Your task to perform on an android device: Search for flights from London to Paris Image 0: 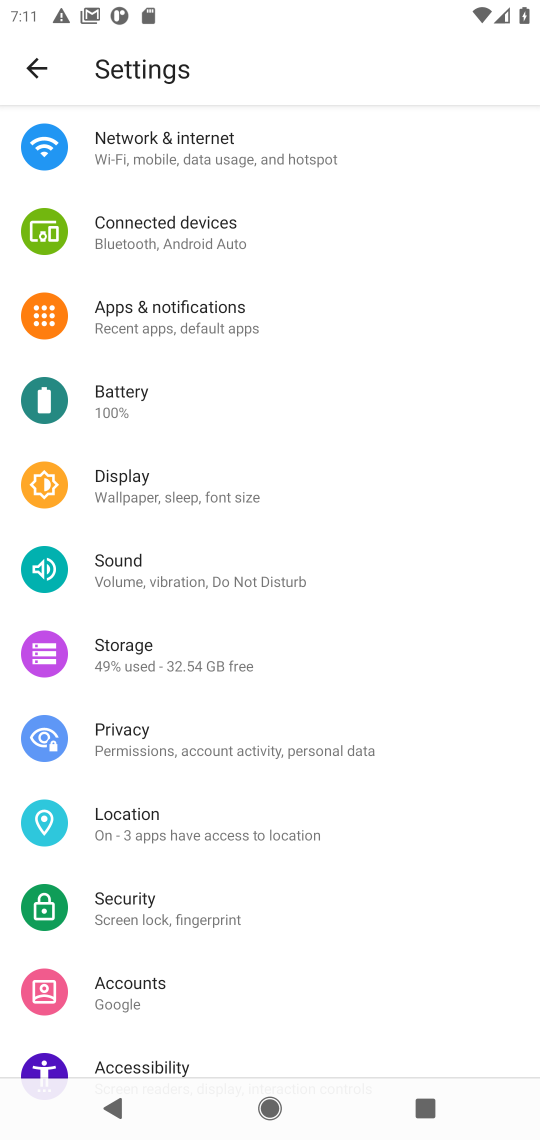
Step 0: press home button
Your task to perform on an android device: Search for flights from London to Paris Image 1: 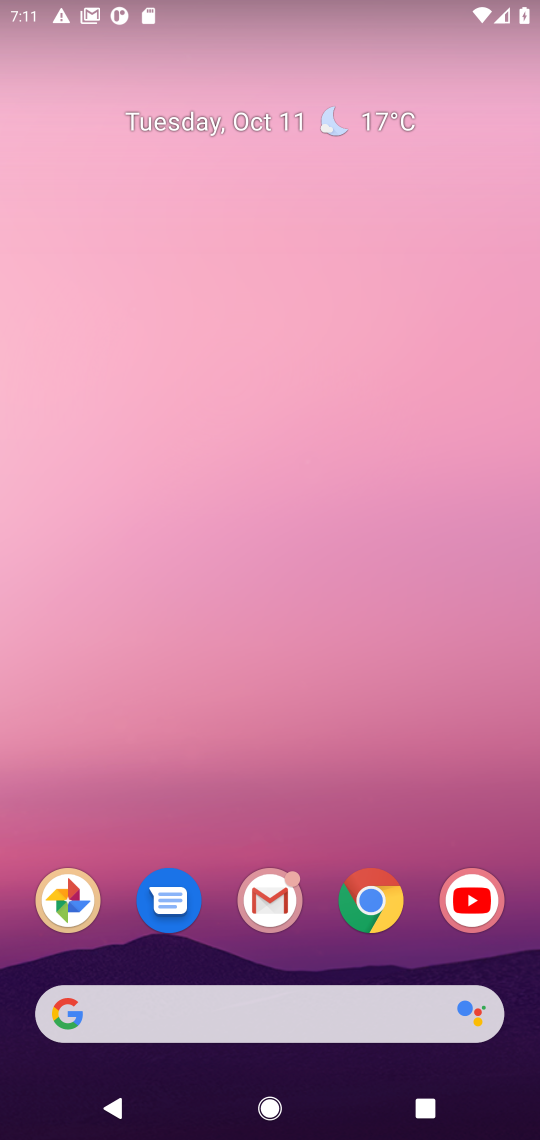
Step 1: click (375, 906)
Your task to perform on an android device: Search for flights from London to Paris Image 2: 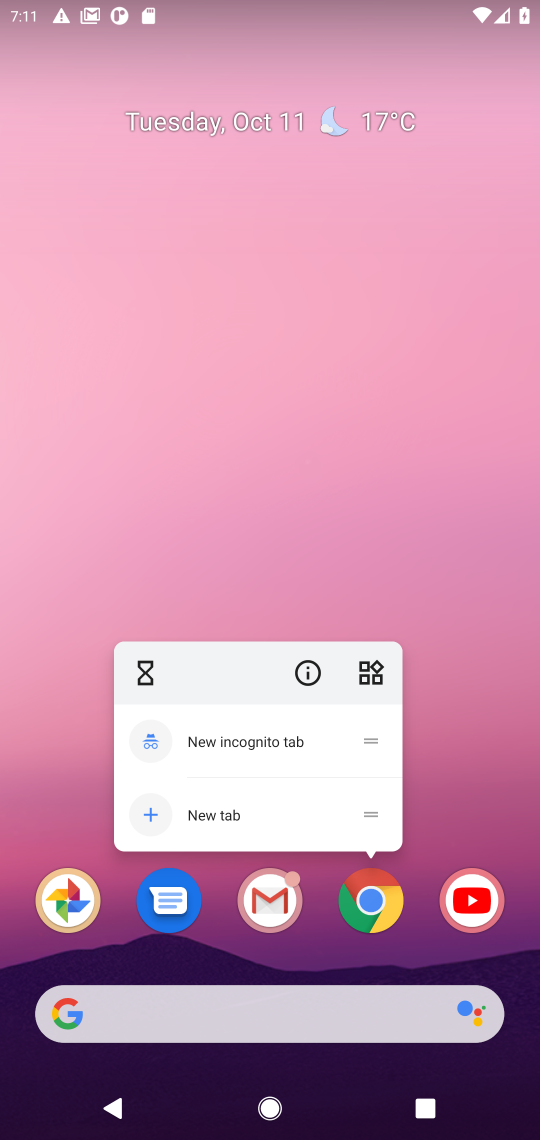
Step 2: click (365, 912)
Your task to perform on an android device: Search for flights from London to Paris Image 3: 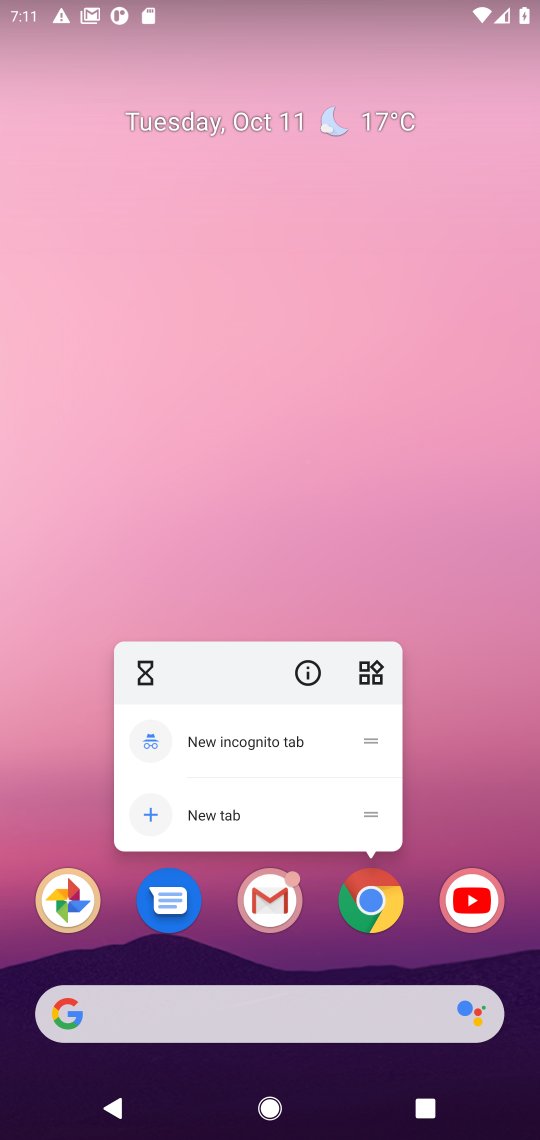
Step 3: click (362, 910)
Your task to perform on an android device: Search for flights from London to Paris Image 4: 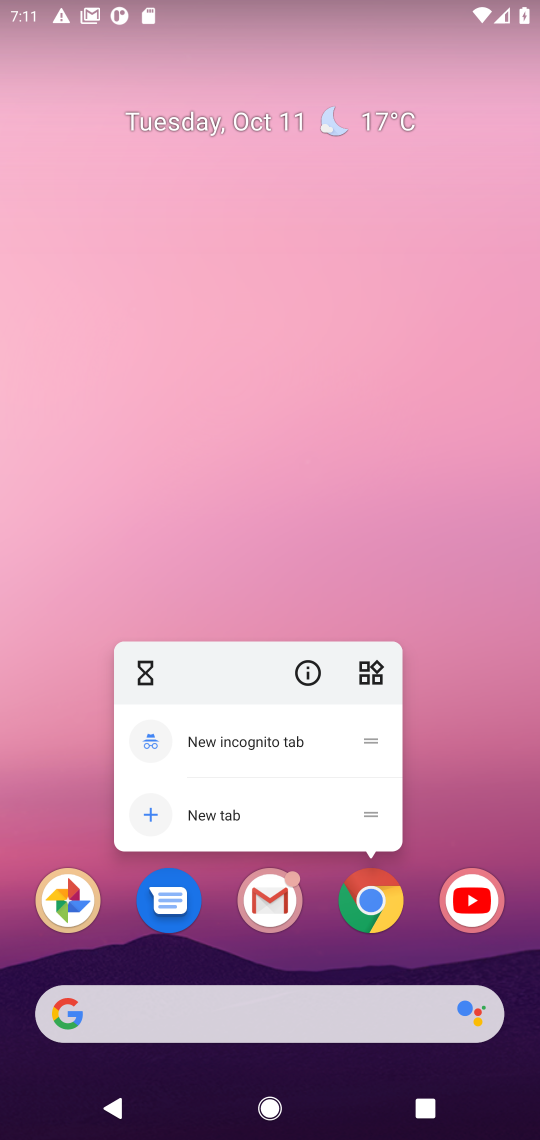
Step 4: click (361, 905)
Your task to perform on an android device: Search for flights from London to Paris Image 5: 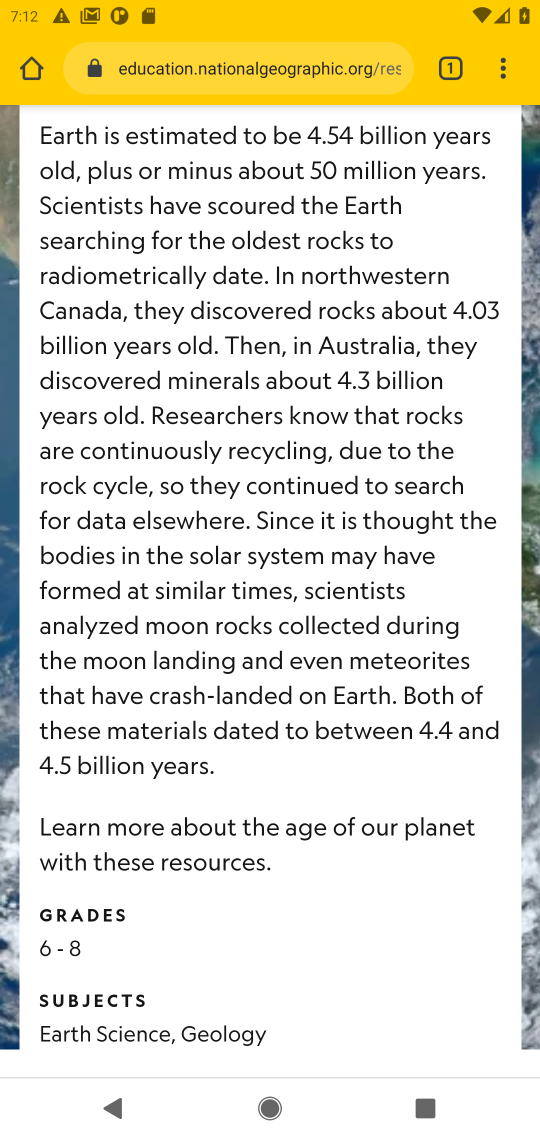
Step 5: click (292, 82)
Your task to perform on an android device: Search for flights from London to Paris Image 6: 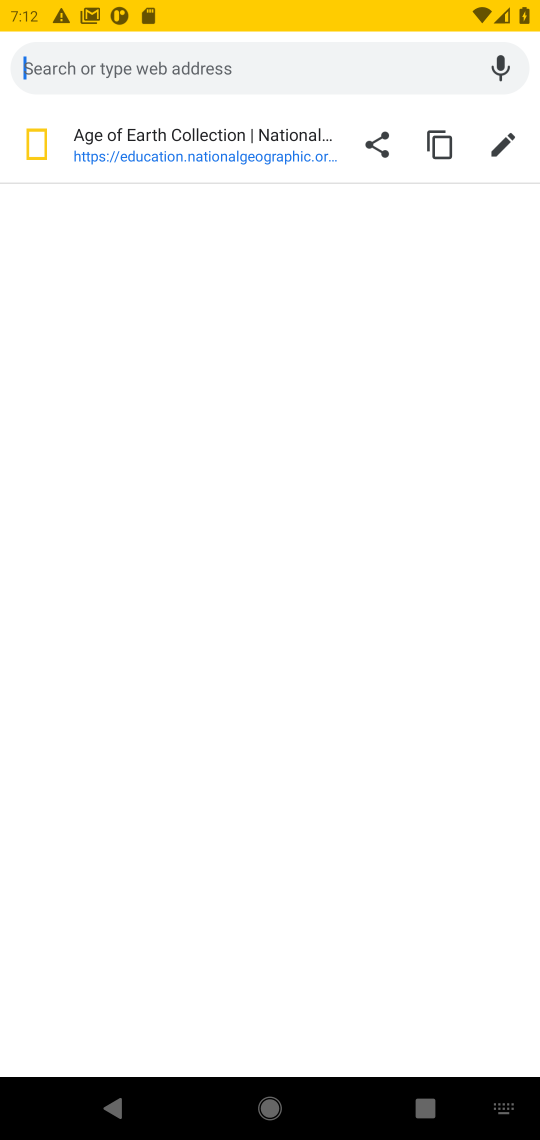
Step 6: type "flights from London to Paris"
Your task to perform on an android device: Search for flights from London to Paris Image 7: 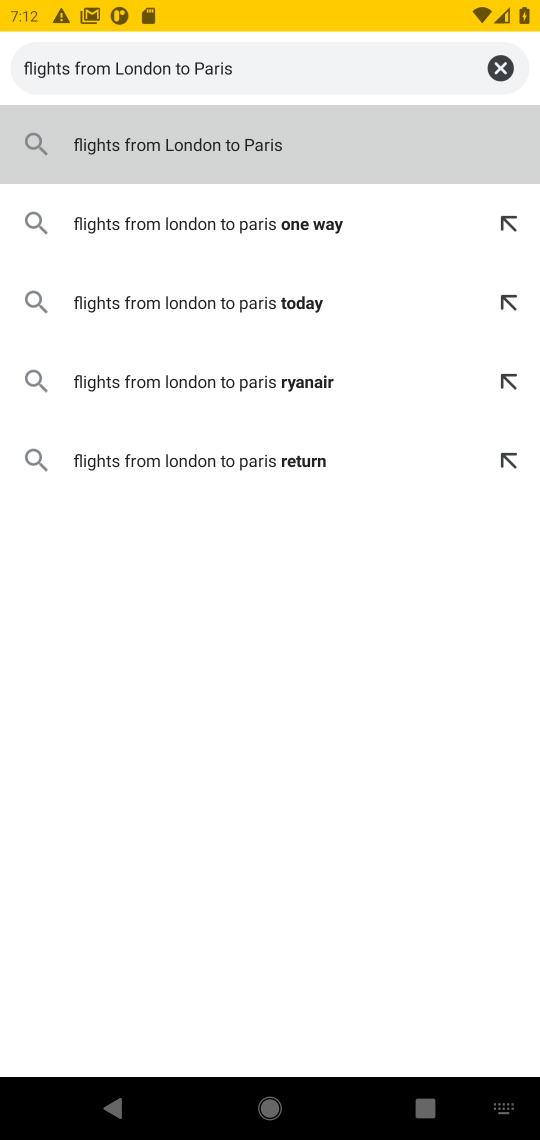
Step 7: press enter
Your task to perform on an android device: Search for flights from London to Paris Image 8: 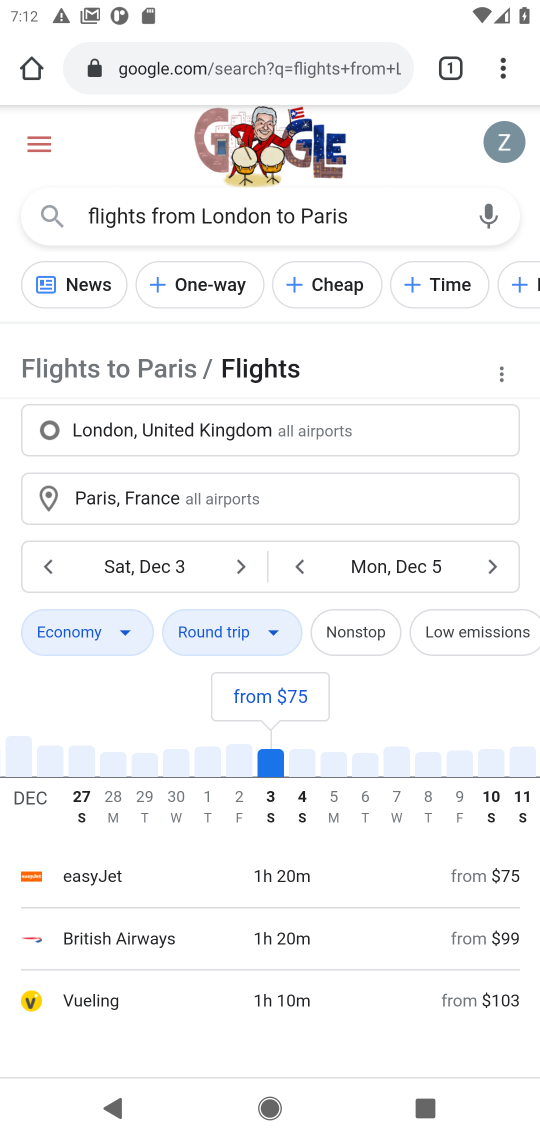
Step 8: drag from (172, 735) to (347, 63)
Your task to perform on an android device: Search for flights from London to Paris Image 9: 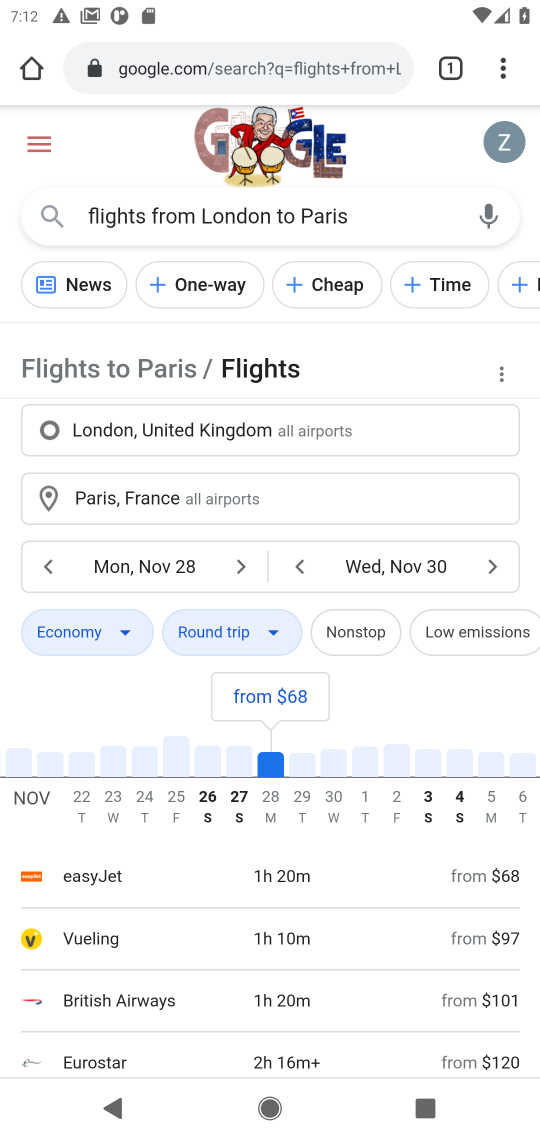
Step 9: drag from (374, 919) to (430, 98)
Your task to perform on an android device: Search for flights from London to Paris Image 10: 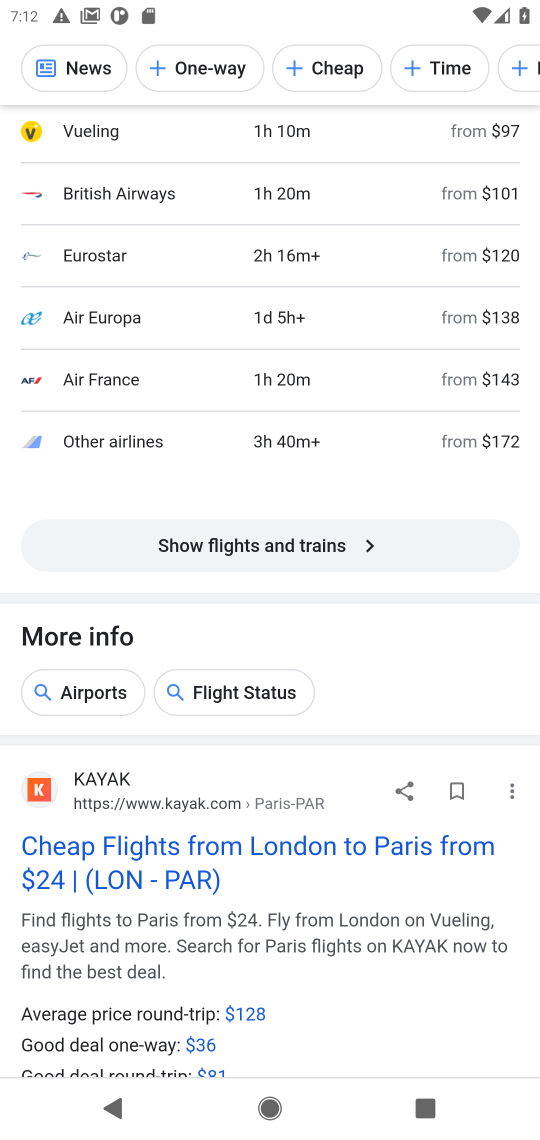
Step 10: click (294, 547)
Your task to perform on an android device: Search for flights from London to Paris Image 11: 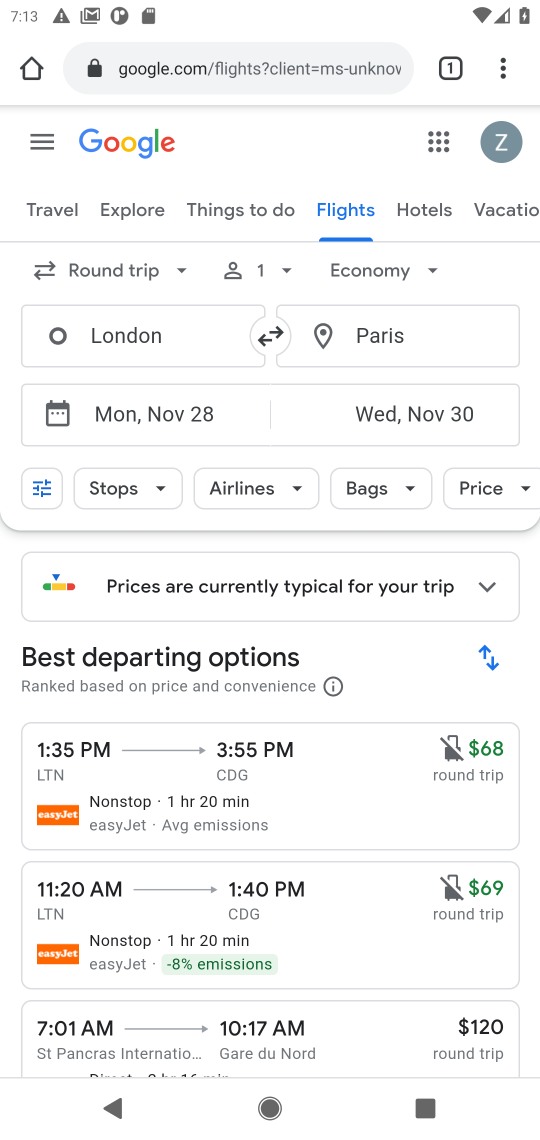
Step 11: task complete